Your task to perform on an android device: clear history in the chrome app Image 0: 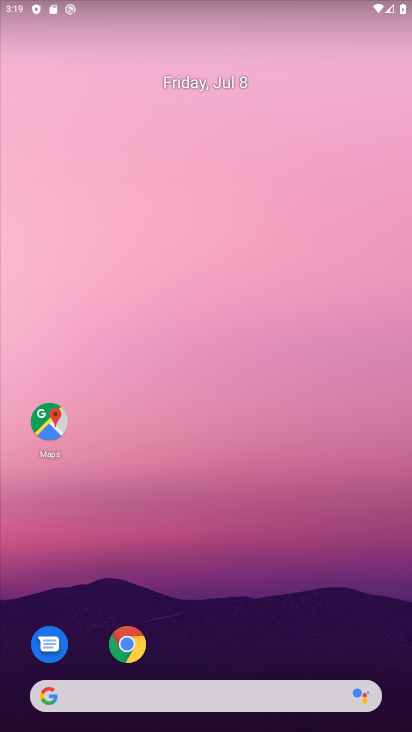
Step 0: drag from (277, 697) to (198, 386)
Your task to perform on an android device: clear history in the chrome app Image 1: 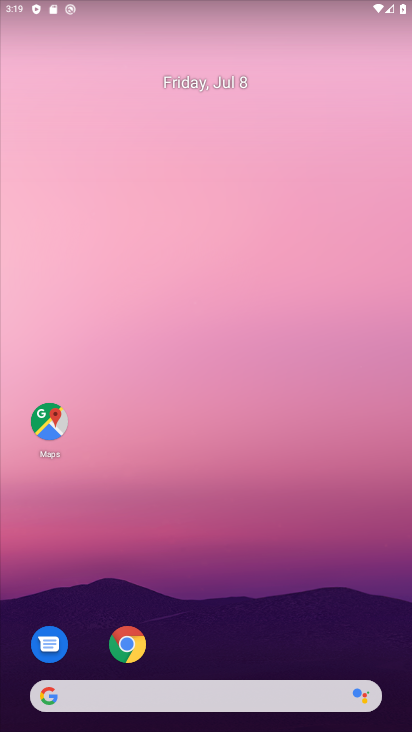
Step 1: drag from (250, 706) to (146, 277)
Your task to perform on an android device: clear history in the chrome app Image 2: 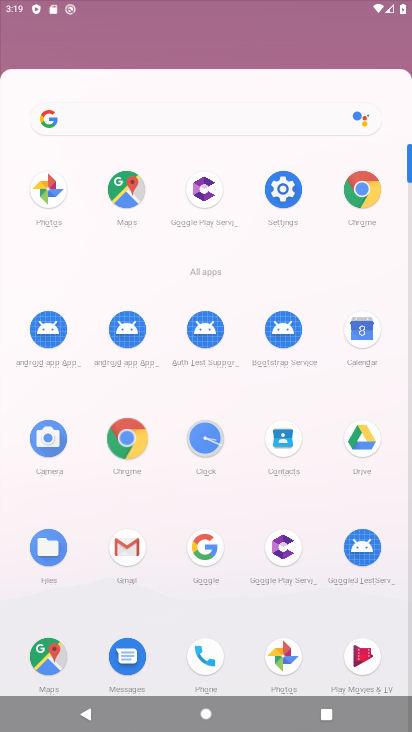
Step 2: click (166, 56)
Your task to perform on an android device: clear history in the chrome app Image 3: 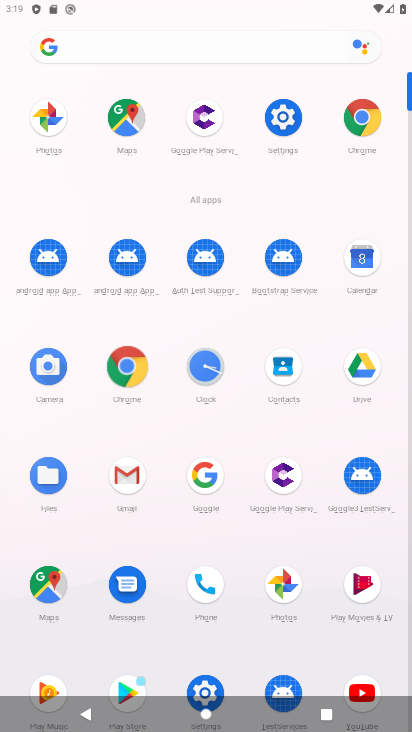
Step 3: click (160, 100)
Your task to perform on an android device: clear history in the chrome app Image 4: 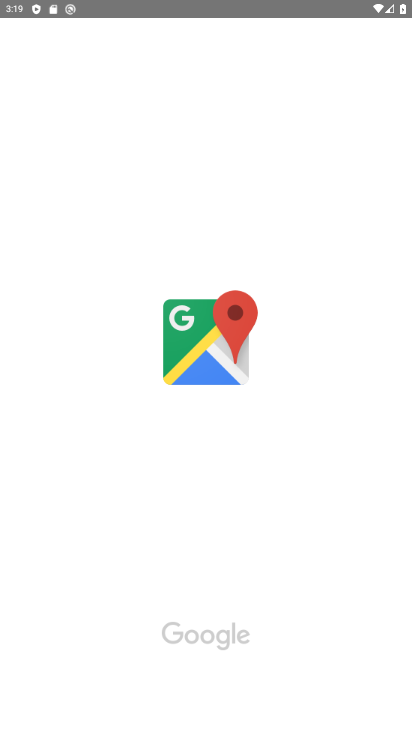
Step 4: press back button
Your task to perform on an android device: clear history in the chrome app Image 5: 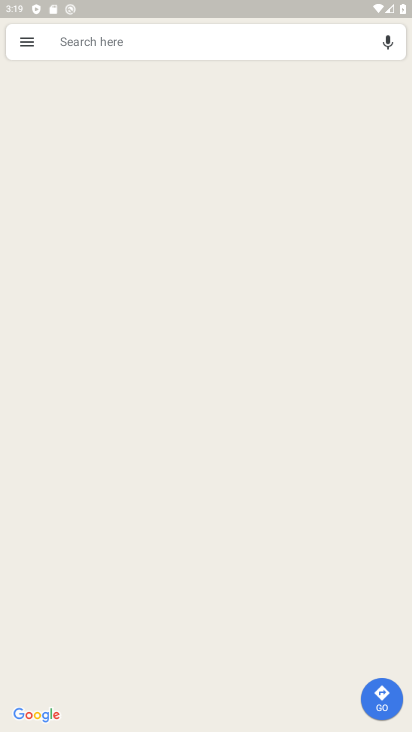
Step 5: press back button
Your task to perform on an android device: clear history in the chrome app Image 6: 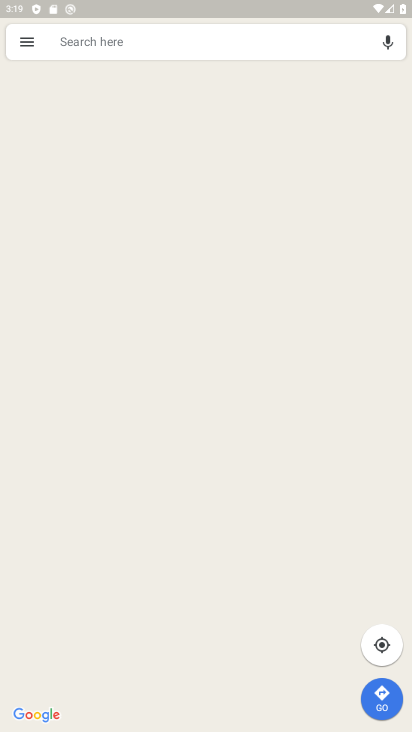
Step 6: click (208, 132)
Your task to perform on an android device: clear history in the chrome app Image 7: 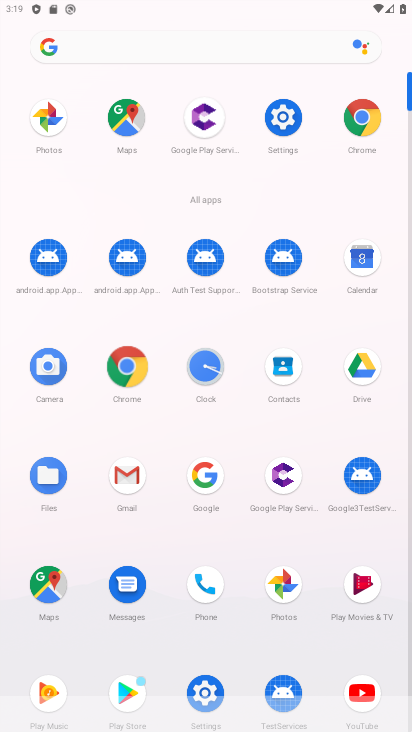
Step 7: press home button
Your task to perform on an android device: clear history in the chrome app Image 8: 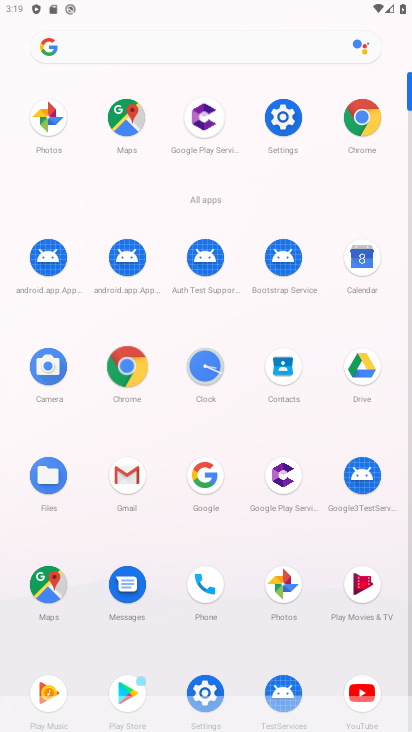
Step 8: press home button
Your task to perform on an android device: clear history in the chrome app Image 9: 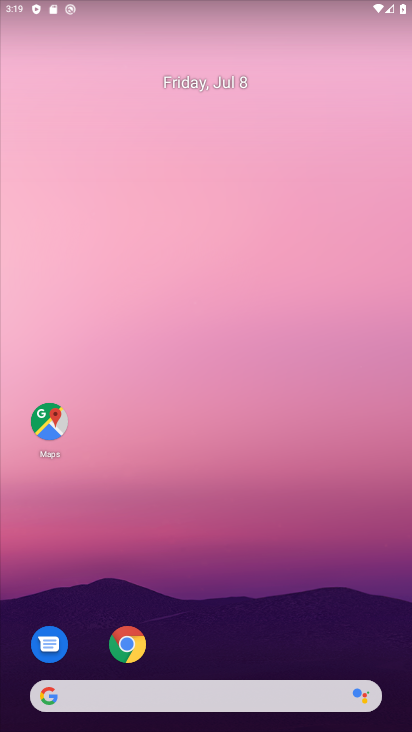
Step 9: drag from (265, 663) to (84, 212)
Your task to perform on an android device: clear history in the chrome app Image 10: 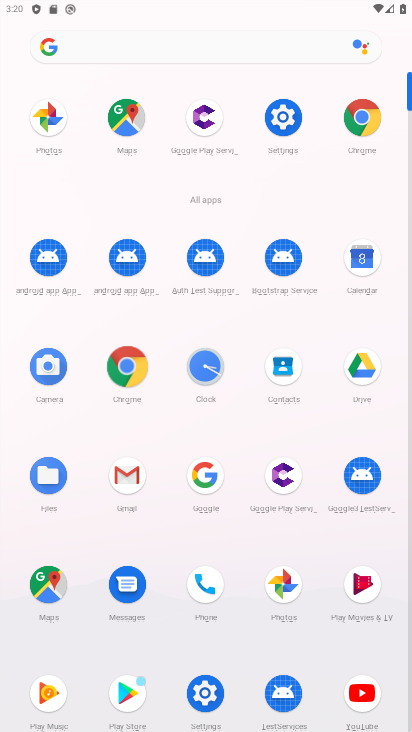
Step 10: click (116, 375)
Your task to perform on an android device: clear history in the chrome app Image 11: 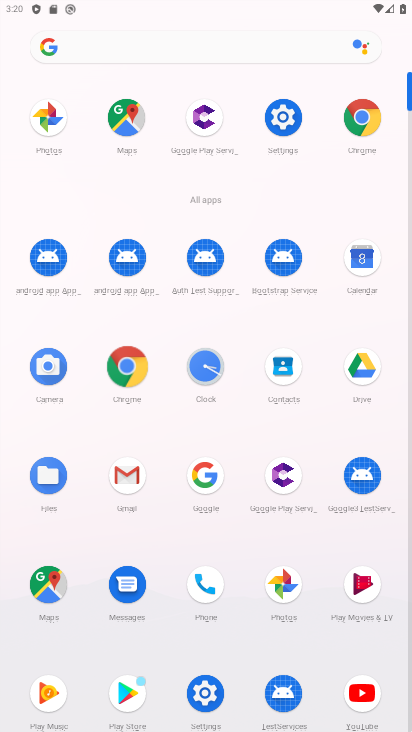
Step 11: click (127, 366)
Your task to perform on an android device: clear history in the chrome app Image 12: 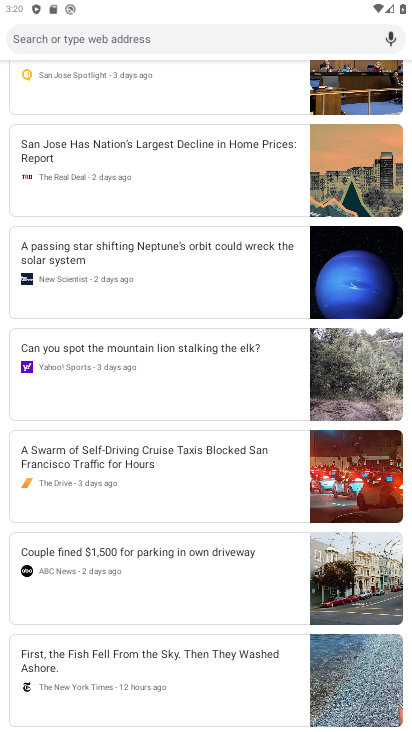
Step 12: drag from (157, 233) to (221, 726)
Your task to perform on an android device: clear history in the chrome app Image 13: 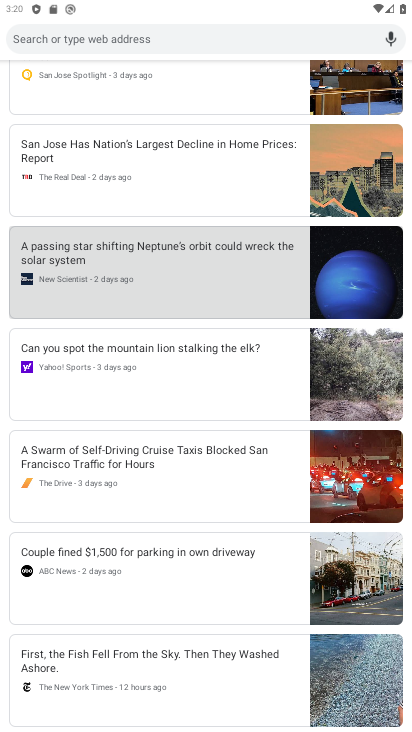
Step 13: drag from (225, 372) to (248, 682)
Your task to perform on an android device: clear history in the chrome app Image 14: 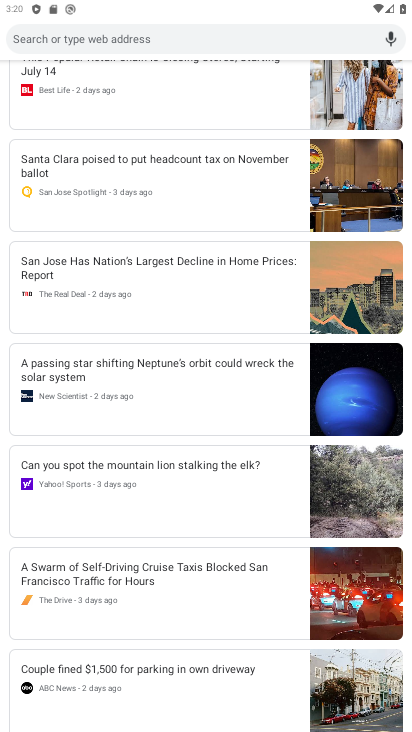
Step 14: drag from (214, 373) to (214, 725)
Your task to perform on an android device: clear history in the chrome app Image 15: 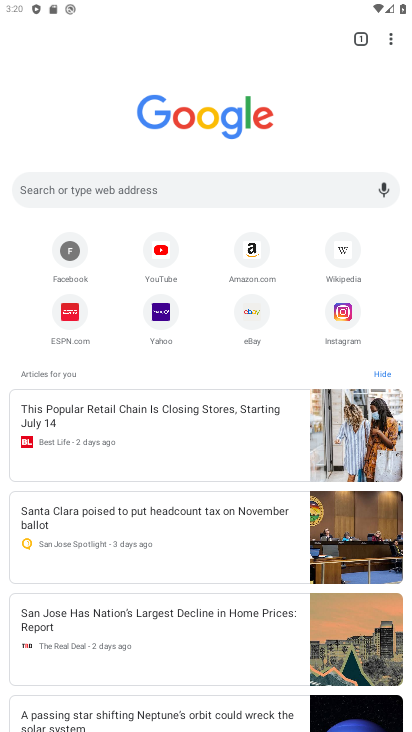
Step 15: drag from (238, 100) to (252, 449)
Your task to perform on an android device: clear history in the chrome app Image 16: 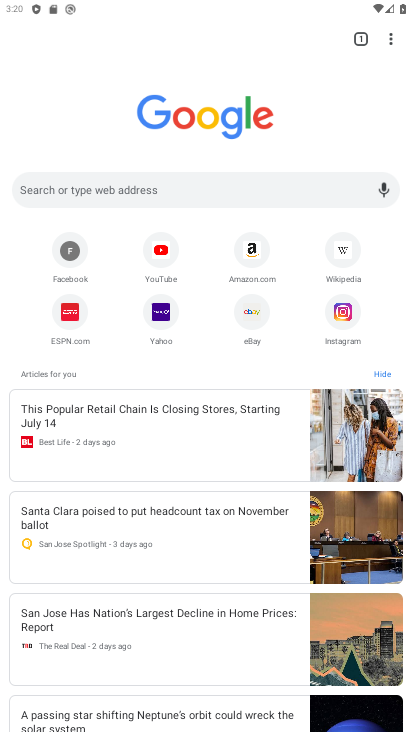
Step 16: drag from (388, 41) to (243, 225)
Your task to perform on an android device: clear history in the chrome app Image 17: 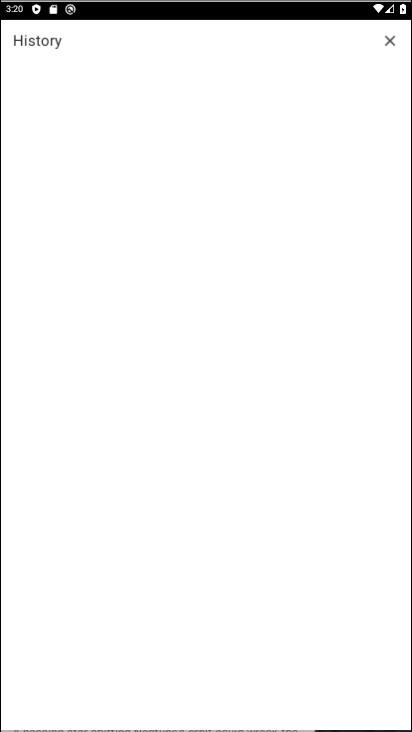
Step 17: click (240, 215)
Your task to perform on an android device: clear history in the chrome app Image 18: 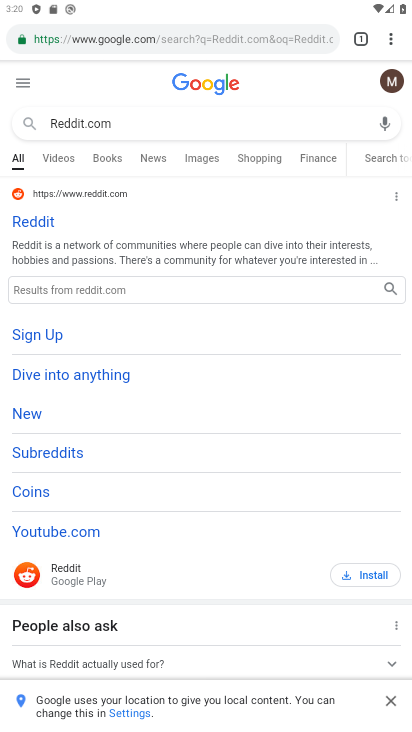
Step 18: task complete